Your task to perform on an android device: create a new album in the google photos Image 0: 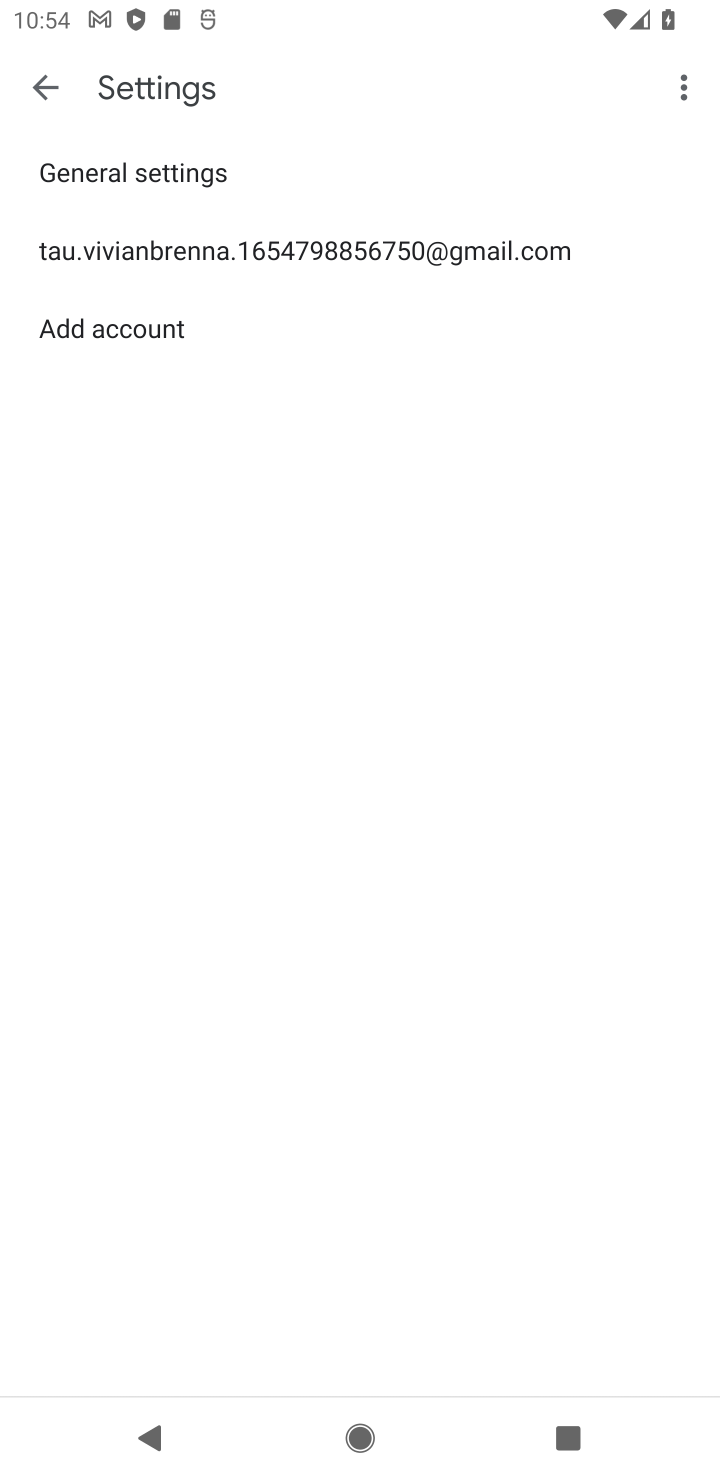
Step 0: press back button
Your task to perform on an android device: create a new album in the google photos Image 1: 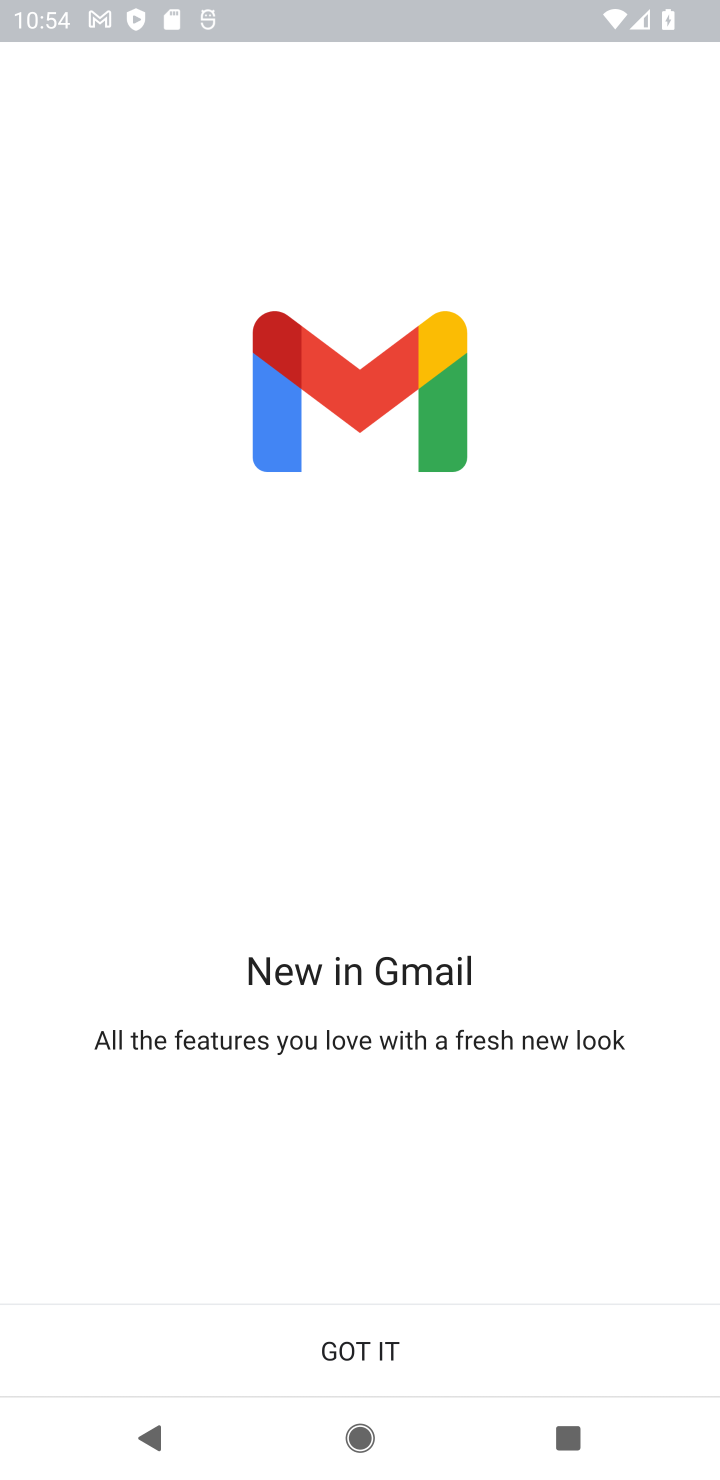
Step 1: press home button
Your task to perform on an android device: create a new album in the google photos Image 2: 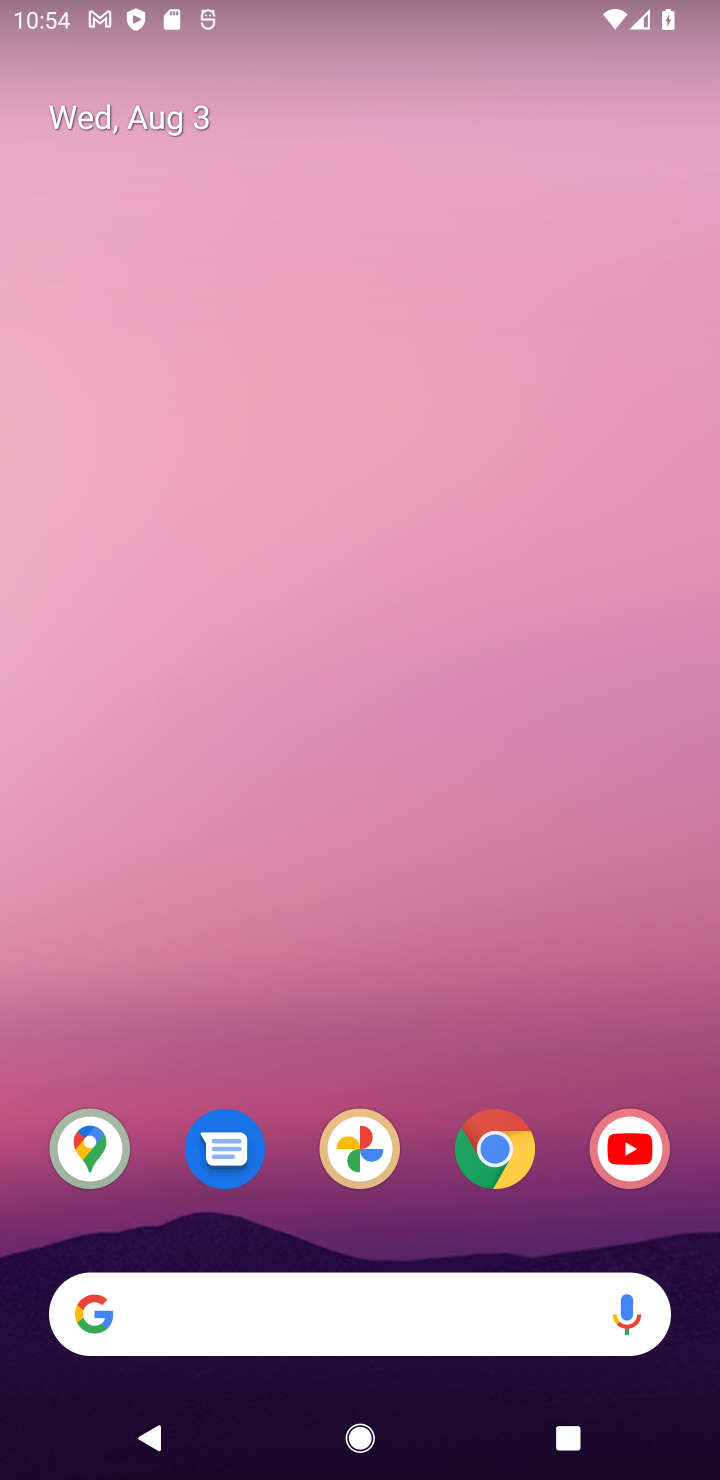
Step 2: click (340, 1163)
Your task to perform on an android device: create a new album in the google photos Image 3: 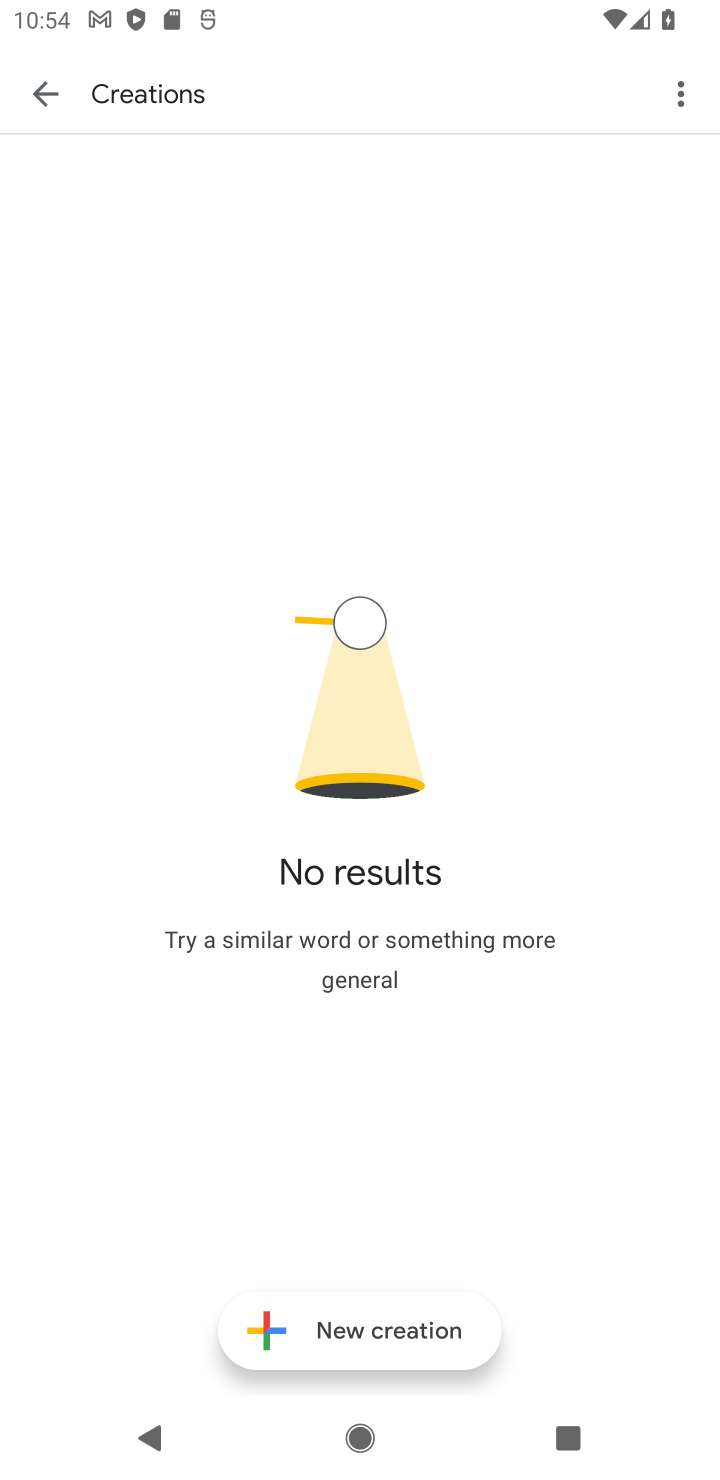
Step 3: click (60, 115)
Your task to perform on an android device: create a new album in the google photos Image 4: 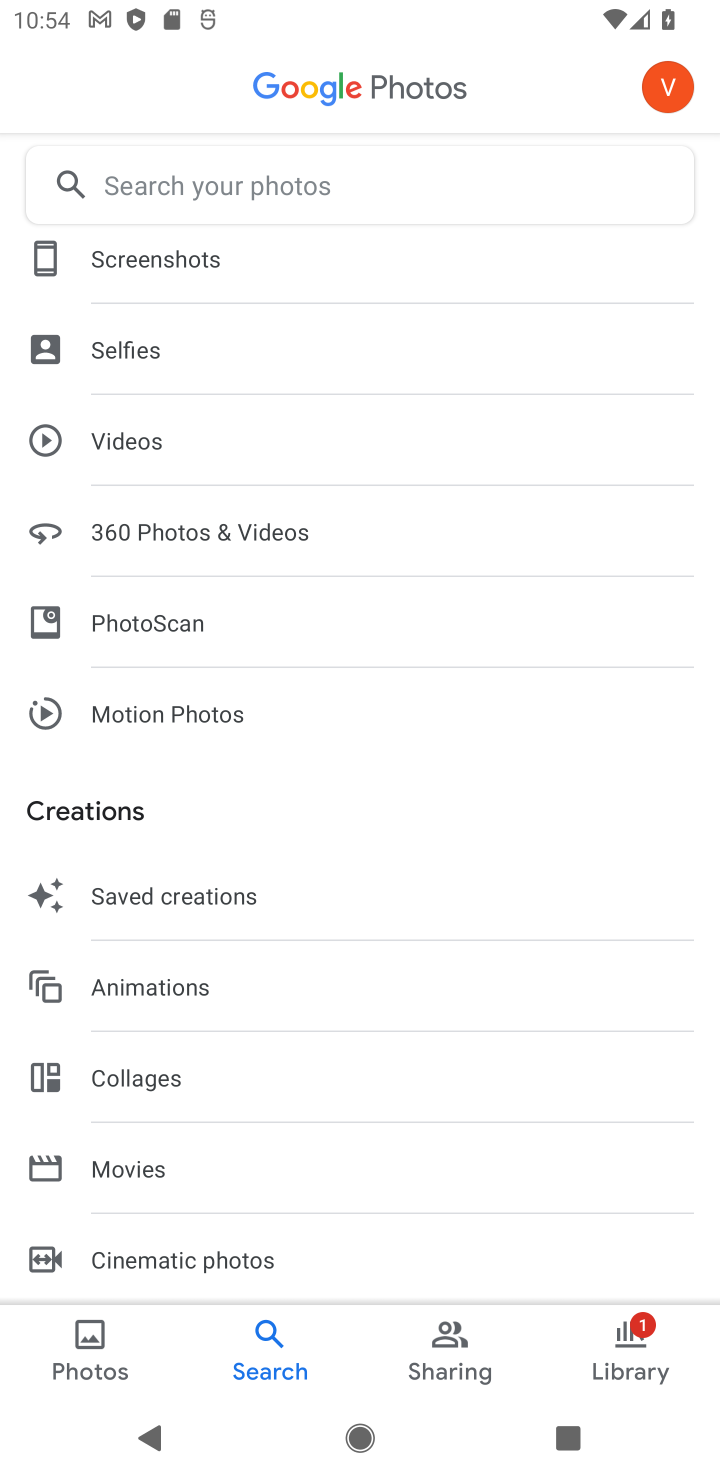
Step 4: click (638, 1337)
Your task to perform on an android device: create a new album in the google photos Image 5: 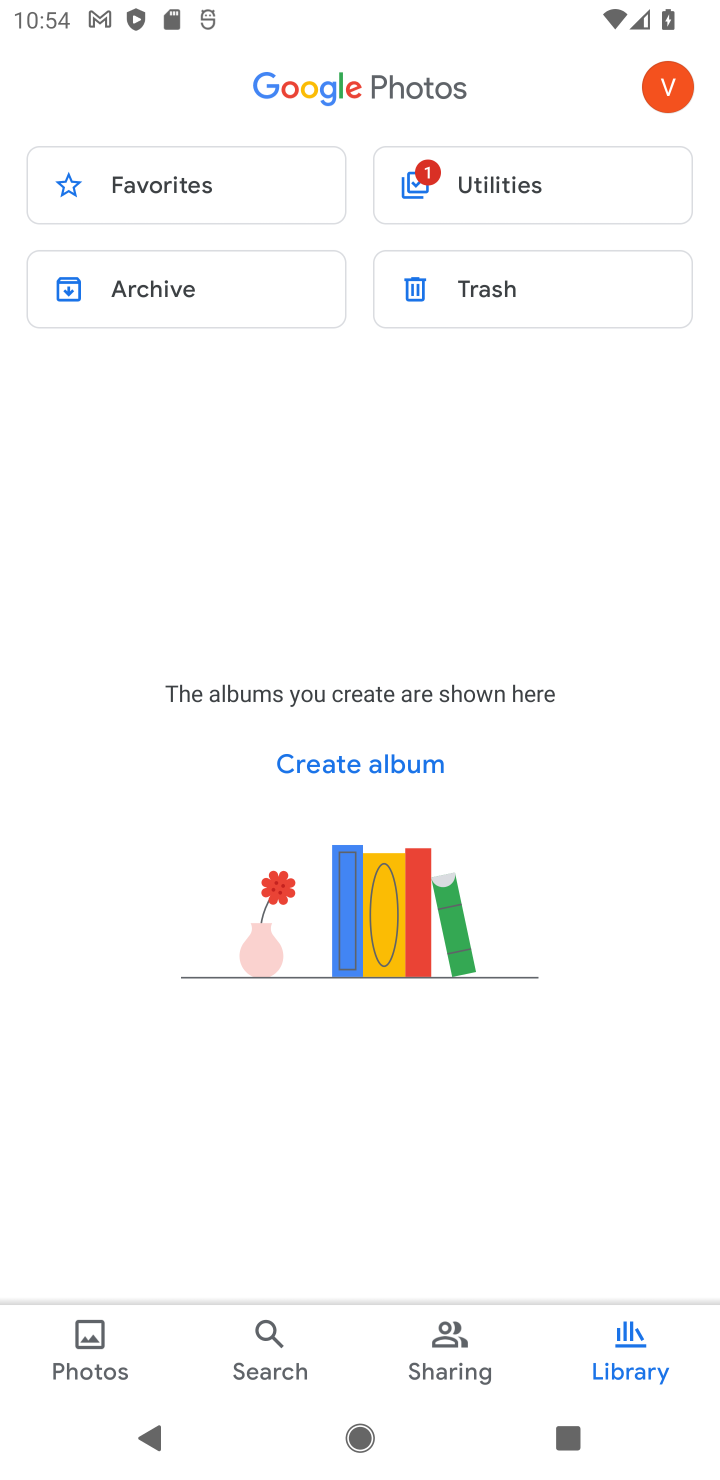
Step 5: click (364, 764)
Your task to perform on an android device: create a new album in the google photos Image 6: 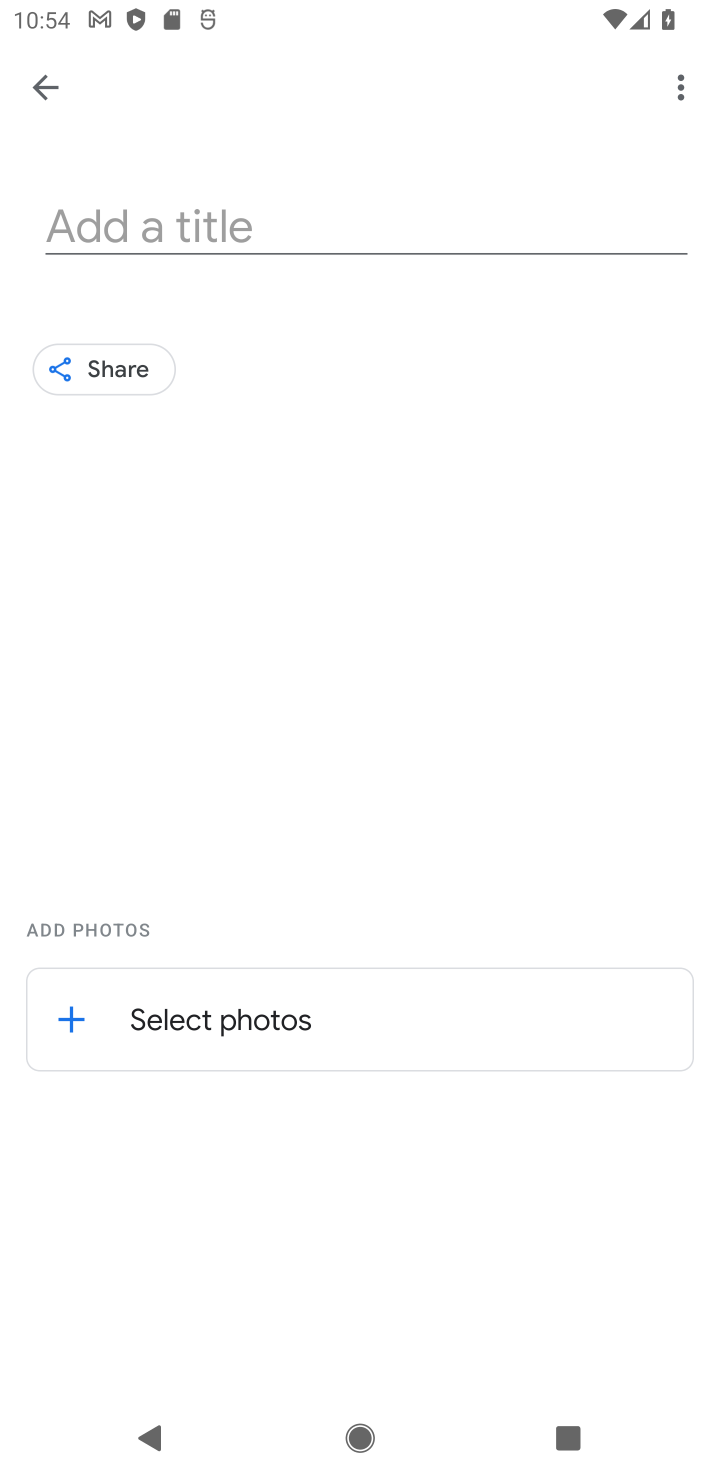
Step 6: click (340, 1067)
Your task to perform on an android device: create a new album in the google photos Image 7: 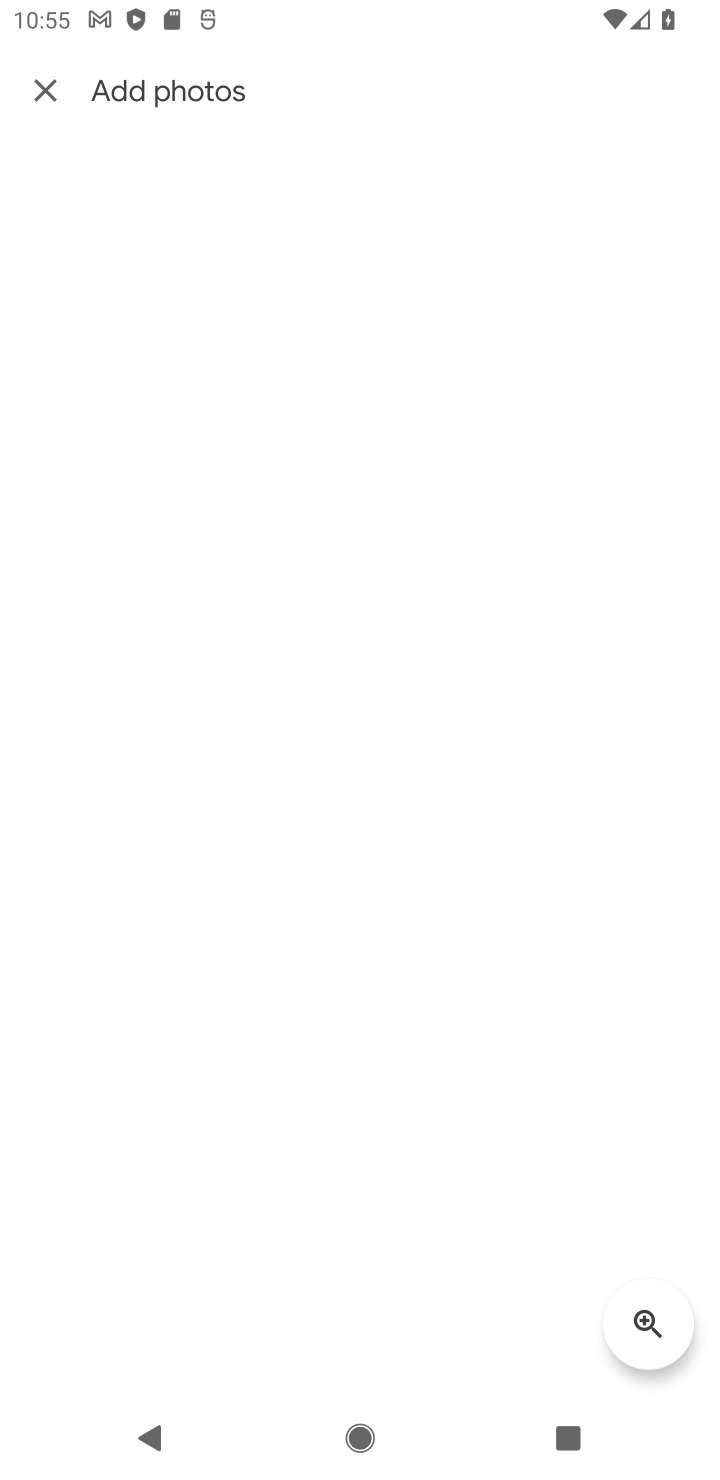
Step 7: task complete